Your task to perform on an android device: change the clock display to show seconds Image 0: 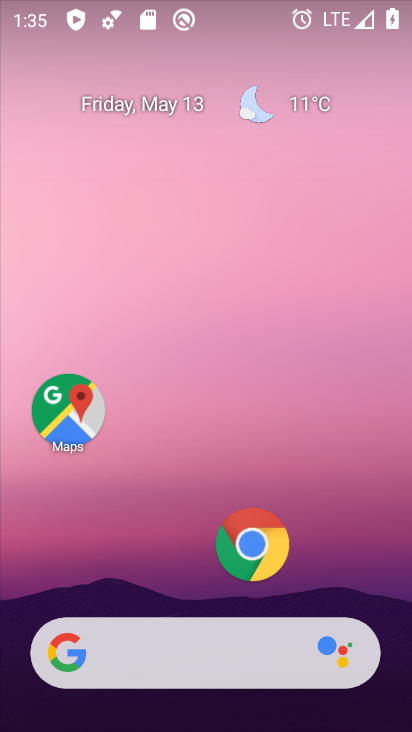
Step 0: drag from (170, 596) to (174, 212)
Your task to perform on an android device: change the clock display to show seconds Image 1: 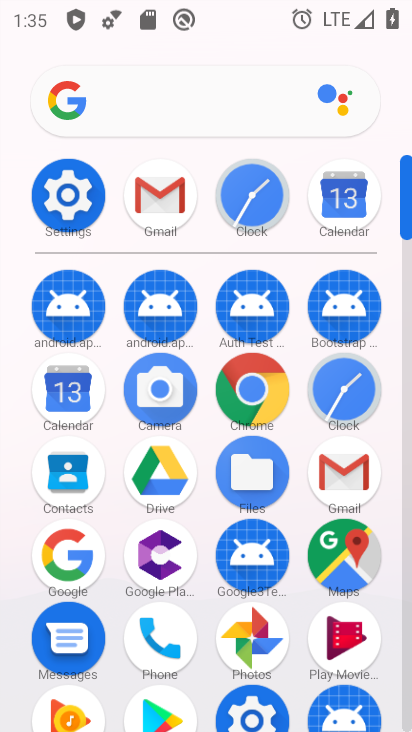
Step 1: click (344, 391)
Your task to perform on an android device: change the clock display to show seconds Image 2: 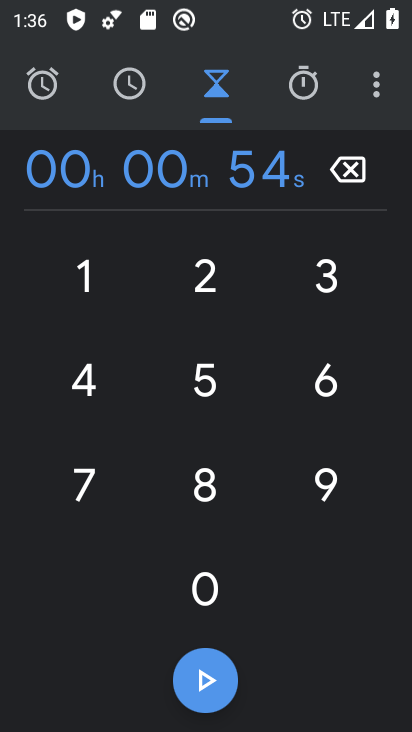
Step 2: click (379, 83)
Your task to perform on an android device: change the clock display to show seconds Image 3: 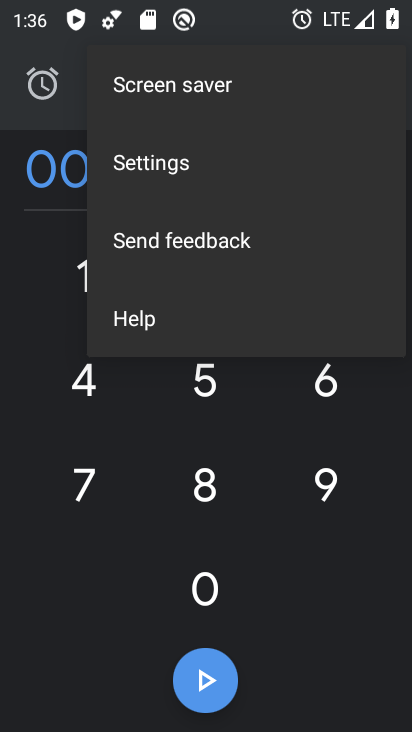
Step 3: click (219, 156)
Your task to perform on an android device: change the clock display to show seconds Image 4: 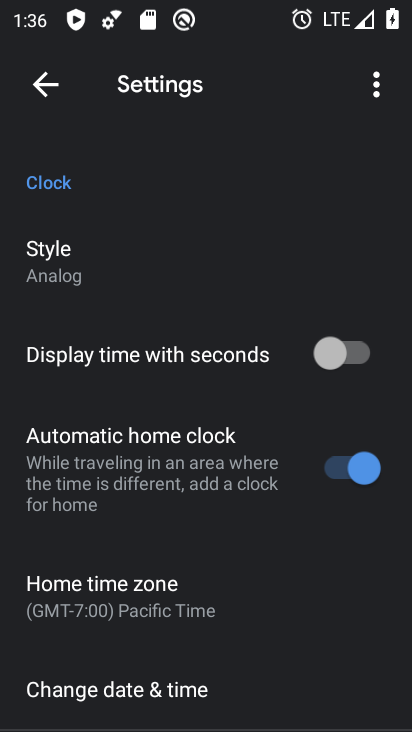
Step 4: click (341, 354)
Your task to perform on an android device: change the clock display to show seconds Image 5: 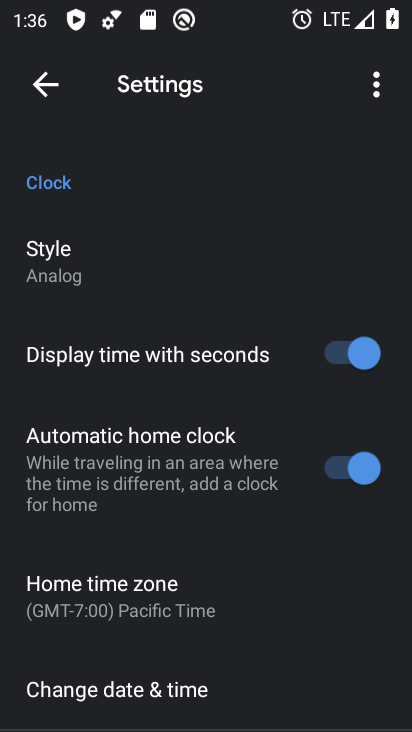
Step 5: task complete